Your task to perform on an android device: What's the weather today? Image 0: 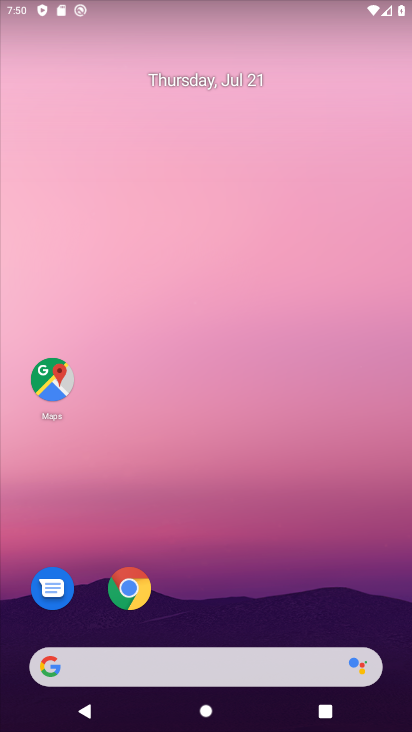
Step 0: click (234, 672)
Your task to perform on an android device: What's the weather today? Image 1: 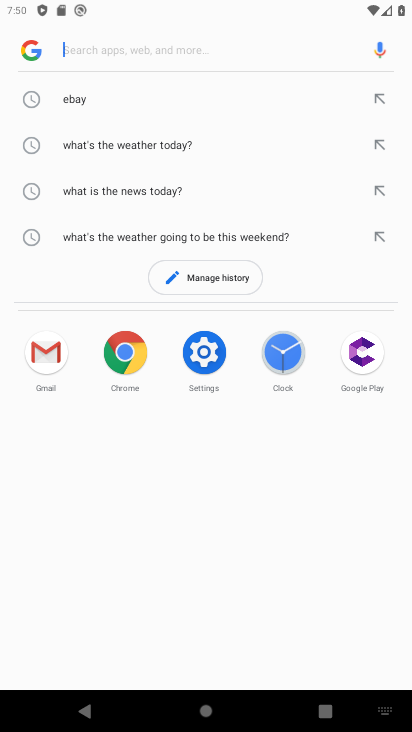
Step 1: click (115, 140)
Your task to perform on an android device: What's the weather today? Image 2: 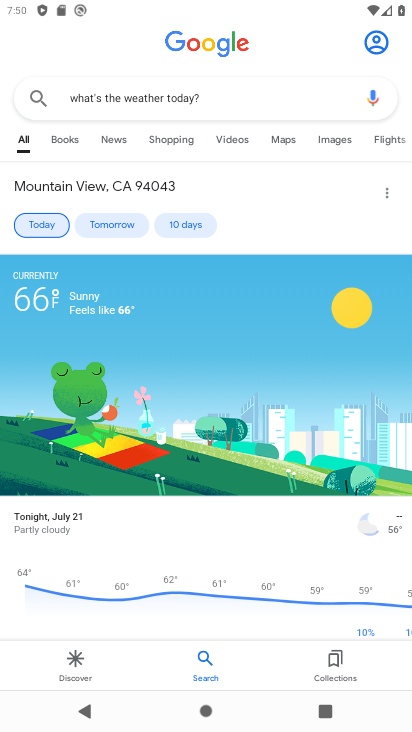
Step 2: task complete